Your task to perform on an android device: What's on my calendar tomorrow? Image 0: 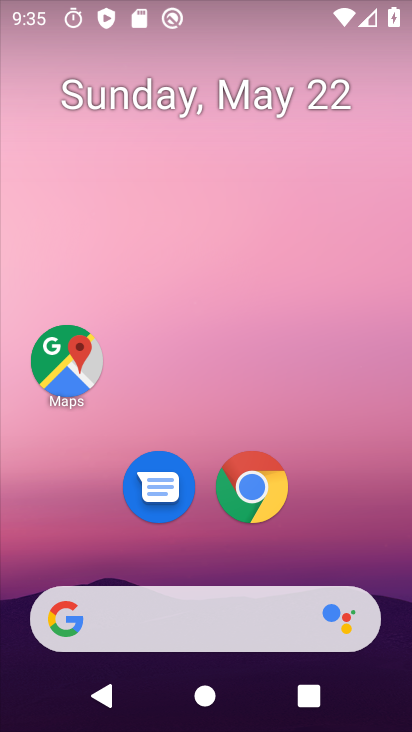
Step 0: drag from (236, 530) to (227, 92)
Your task to perform on an android device: What's on my calendar tomorrow? Image 1: 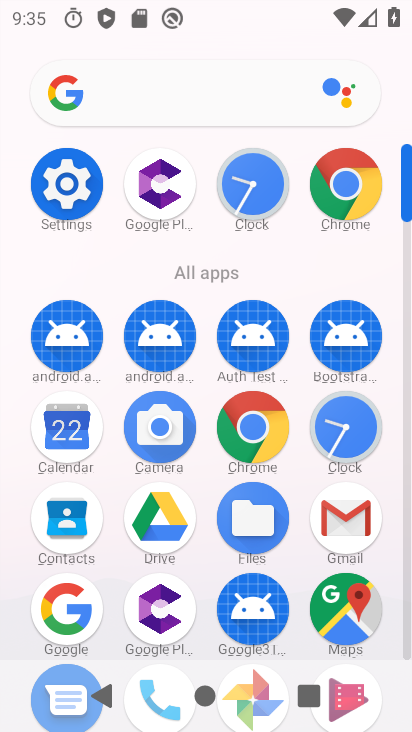
Step 1: click (73, 437)
Your task to perform on an android device: What's on my calendar tomorrow? Image 2: 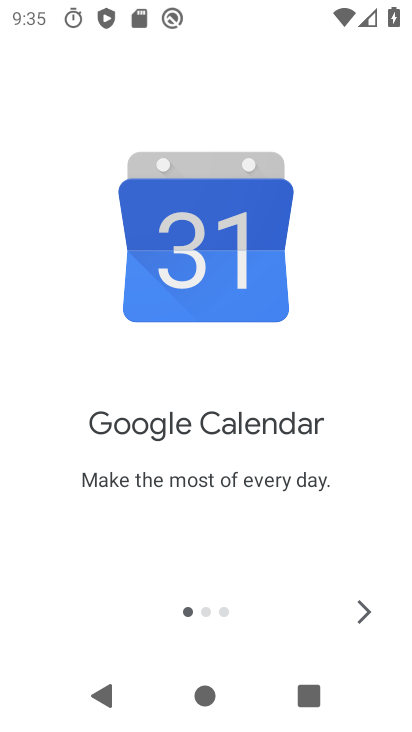
Step 2: click (354, 614)
Your task to perform on an android device: What's on my calendar tomorrow? Image 3: 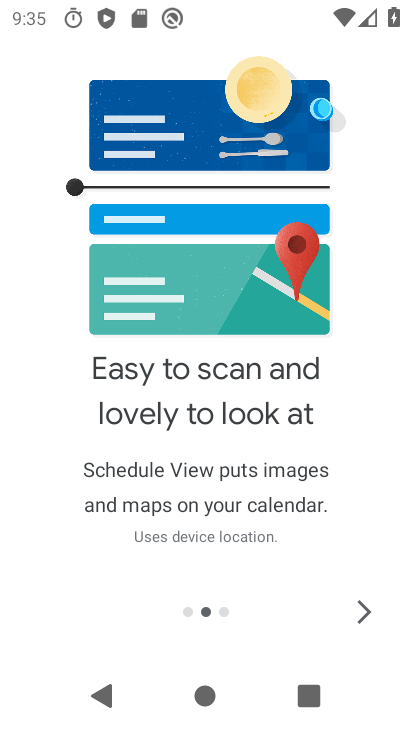
Step 3: click (354, 614)
Your task to perform on an android device: What's on my calendar tomorrow? Image 4: 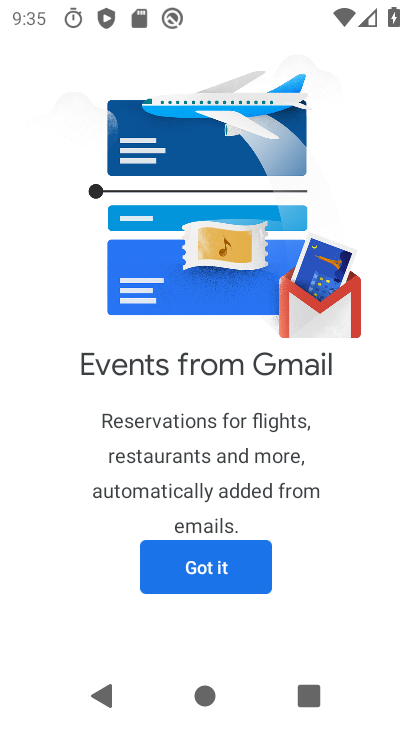
Step 4: click (190, 566)
Your task to perform on an android device: What's on my calendar tomorrow? Image 5: 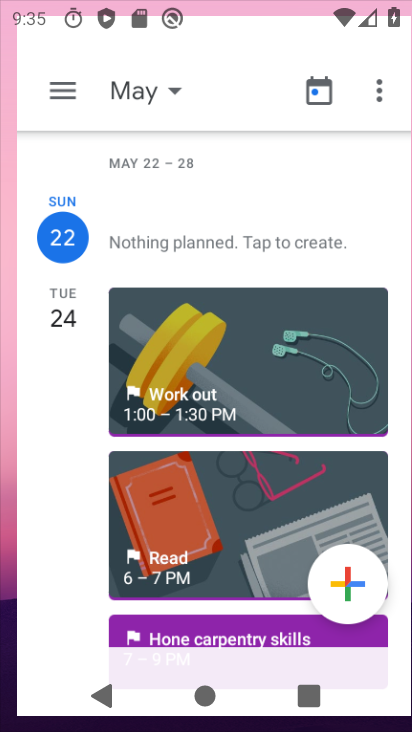
Step 5: click (213, 566)
Your task to perform on an android device: What's on my calendar tomorrow? Image 6: 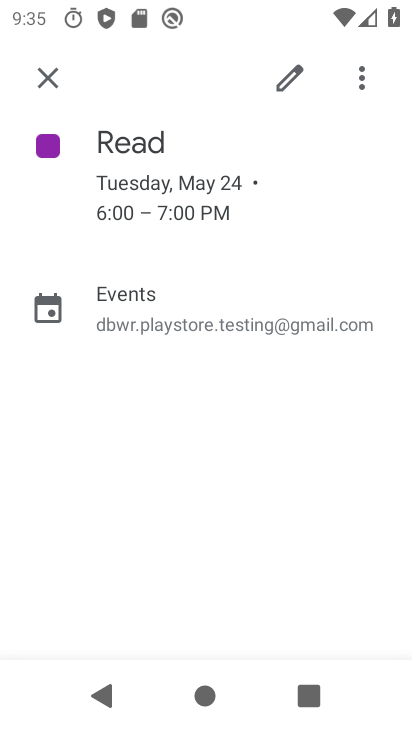
Step 6: click (33, 76)
Your task to perform on an android device: What's on my calendar tomorrow? Image 7: 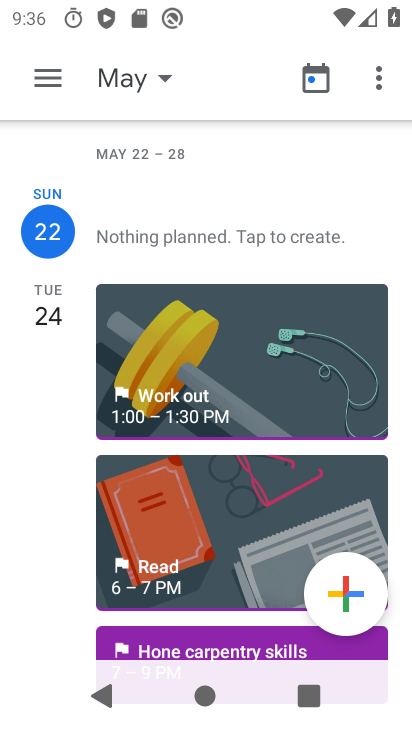
Step 7: click (156, 83)
Your task to perform on an android device: What's on my calendar tomorrow? Image 8: 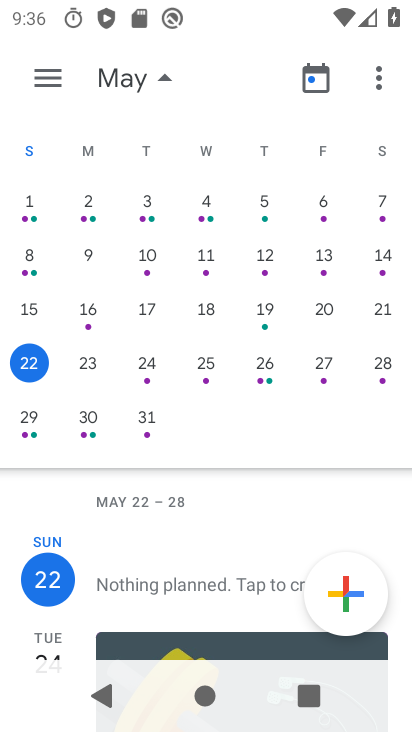
Step 8: click (89, 362)
Your task to perform on an android device: What's on my calendar tomorrow? Image 9: 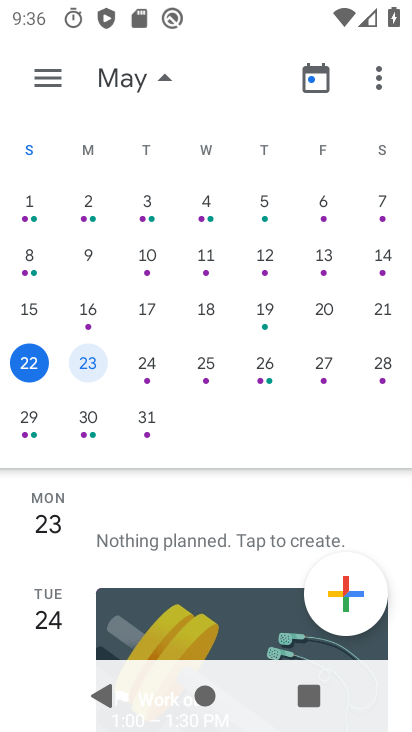
Step 9: task complete